Your task to perform on an android device: Go to Maps Image 0: 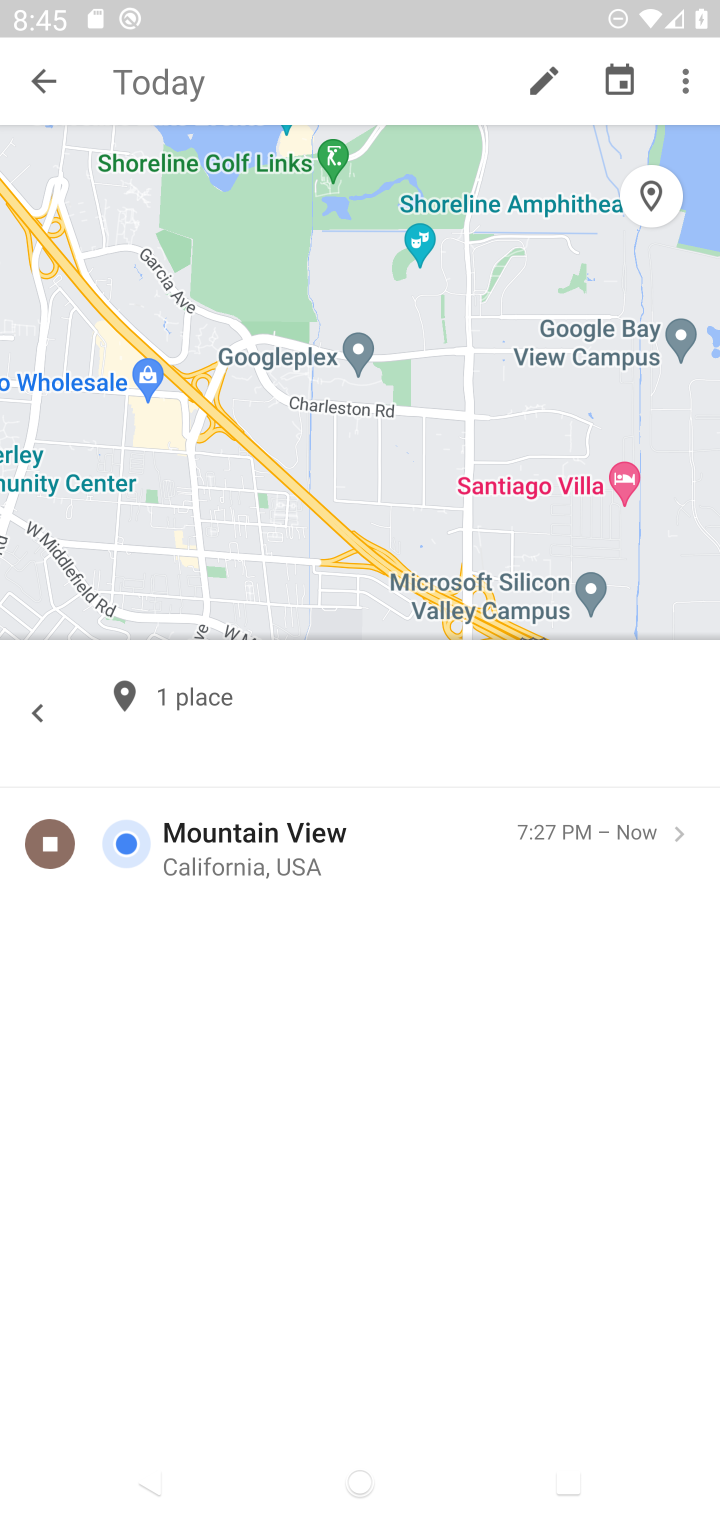
Step 0: click (51, 83)
Your task to perform on an android device: Go to Maps Image 1: 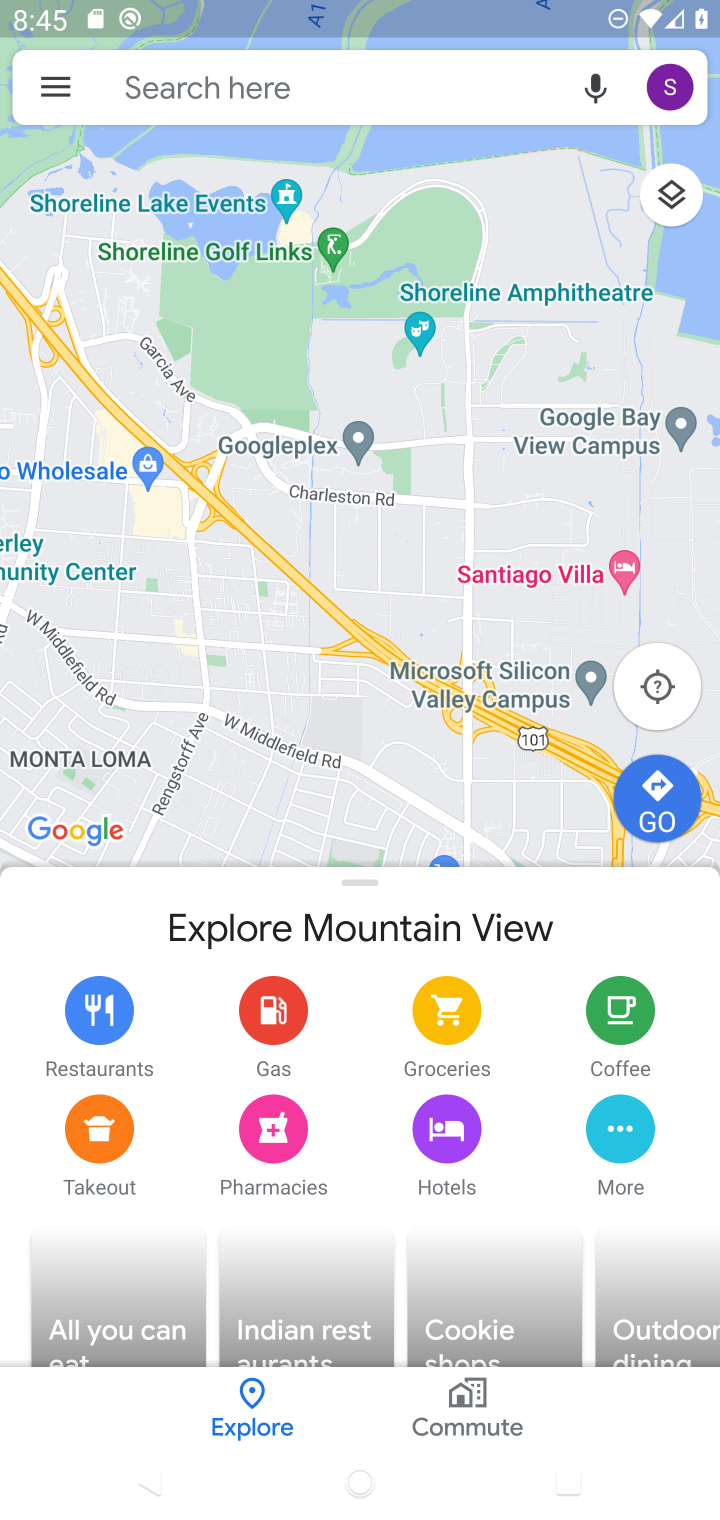
Step 1: task complete